Your task to perform on an android device: change keyboard looks Image 0: 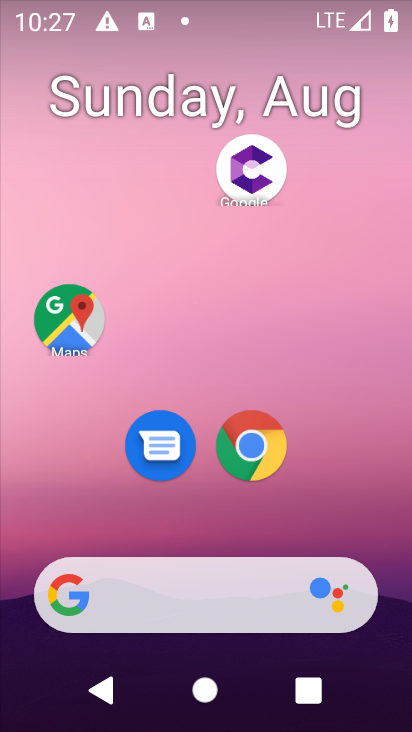
Step 0: press home button
Your task to perform on an android device: change keyboard looks Image 1: 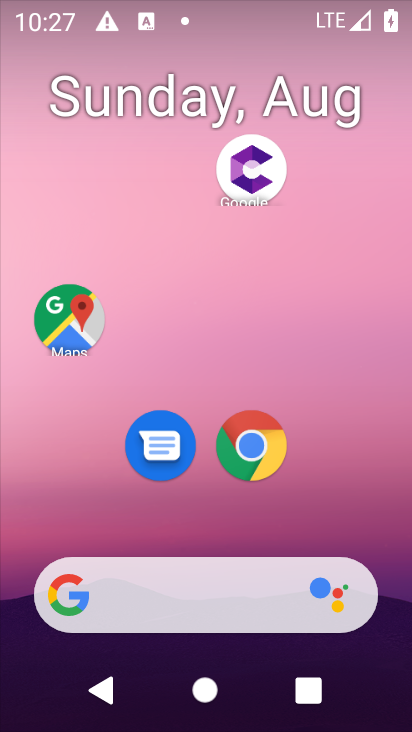
Step 1: drag from (207, 527) to (195, 120)
Your task to perform on an android device: change keyboard looks Image 2: 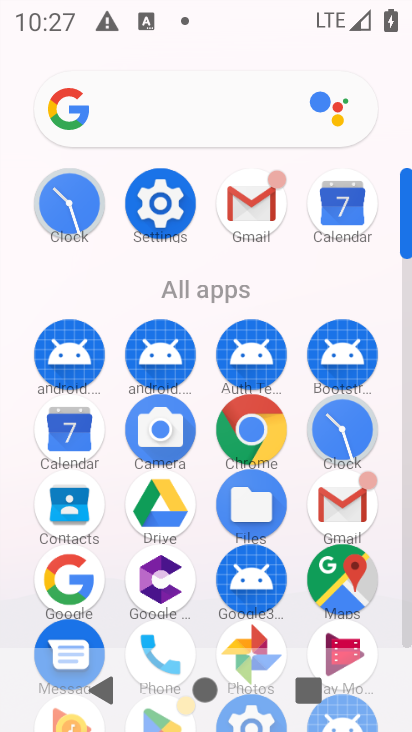
Step 2: click (154, 199)
Your task to perform on an android device: change keyboard looks Image 3: 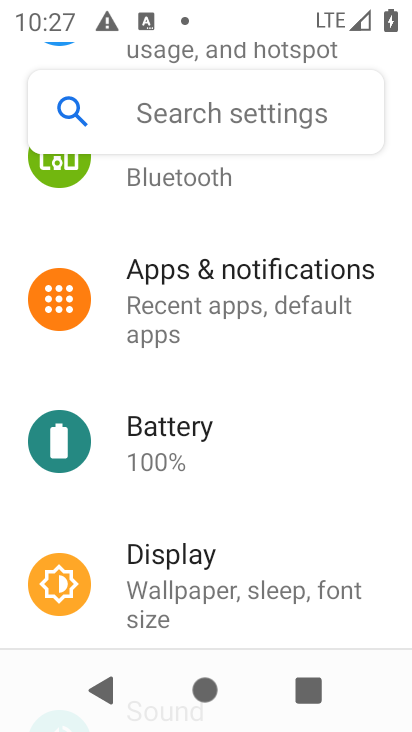
Step 3: drag from (252, 619) to (262, 119)
Your task to perform on an android device: change keyboard looks Image 4: 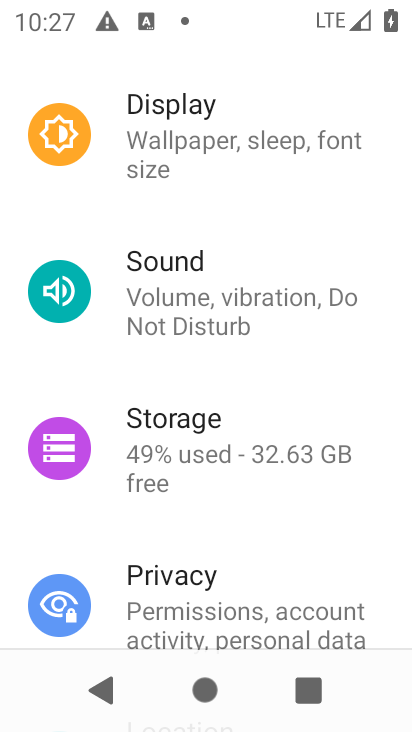
Step 4: drag from (243, 564) to (267, 107)
Your task to perform on an android device: change keyboard looks Image 5: 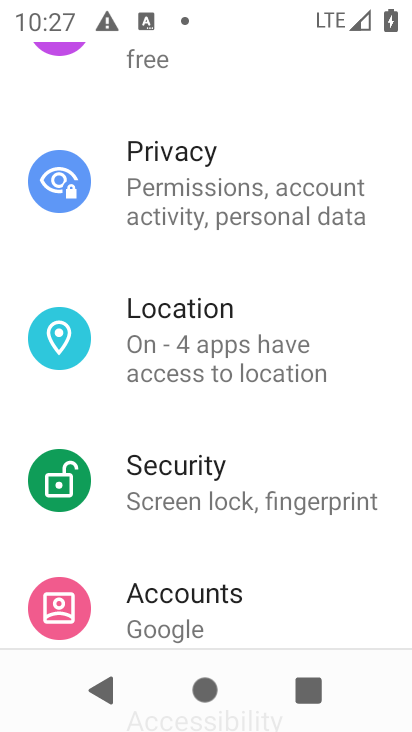
Step 5: drag from (260, 615) to (257, 67)
Your task to perform on an android device: change keyboard looks Image 6: 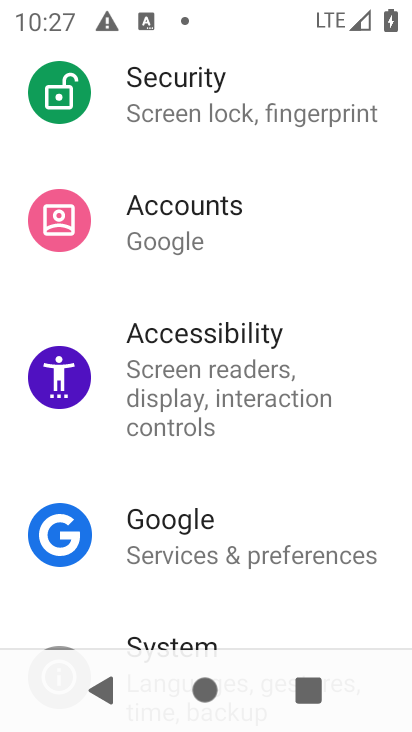
Step 6: drag from (243, 607) to (259, 104)
Your task to perform on an android device: change keyboard looks Image 7: 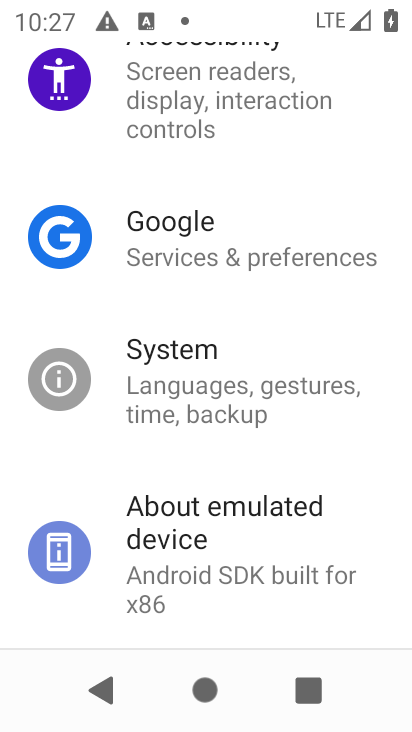
Step 7: click (112, 363)
Your task to perform on an android device: change keyboard looks Image 8: 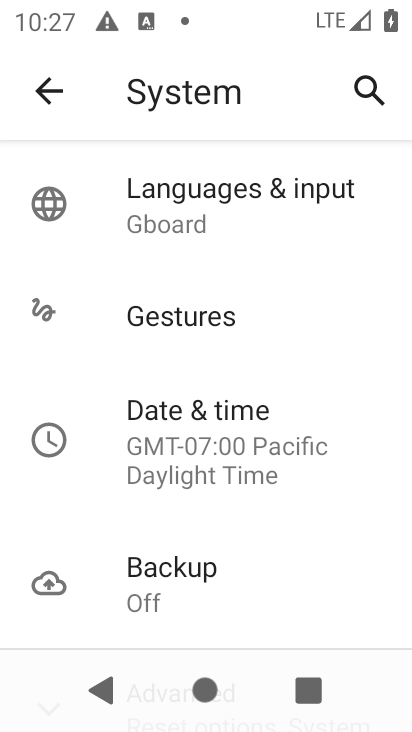
Step 8: drag from (225, 594) to (261, 84)
Your task to perform on an android device: change keyboard looks Image 9: 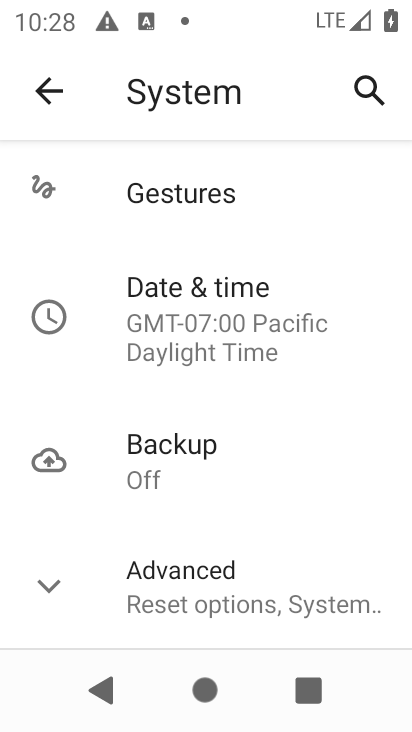
Step 9: click (50, 591)
Your task to perform on an android device: change keyboard looks Image 10: 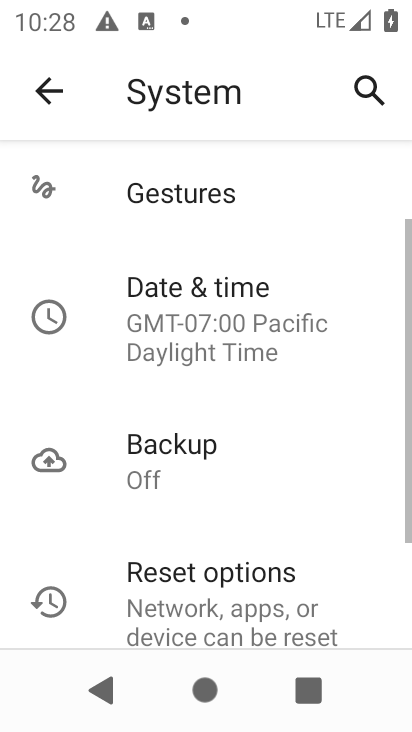
Step 10: drag from (250, 567) to (246, 146)
Your task to perform on an android device: change keyboard looks Image 11: 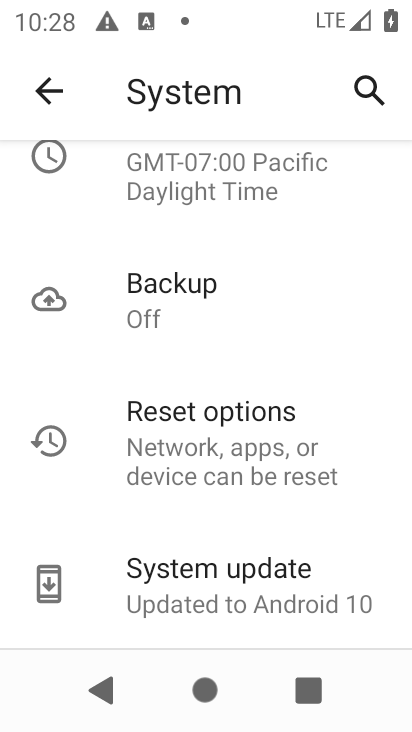
Step 11: drag from (106, 217) to (145, 608)
Your task to perform on an android device: change keyboard looks Image 12: 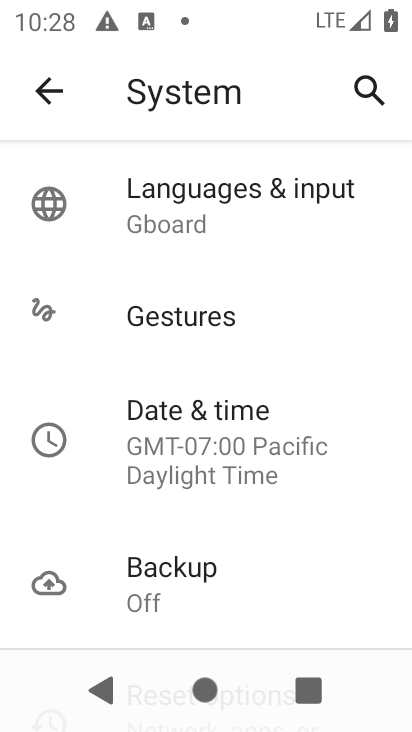
Step 12: click (118, 191)
Your task to perform on an android device: change keyboard looks Image 13: 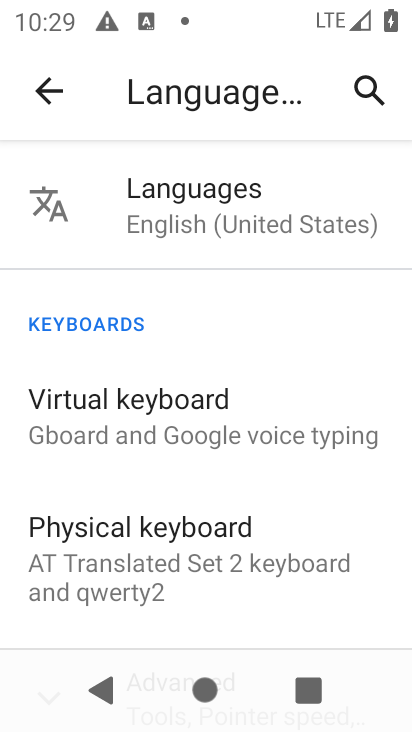
Step 13: click (161, 418)
Your task to perform on an android device: change keyboard looks Image 14: 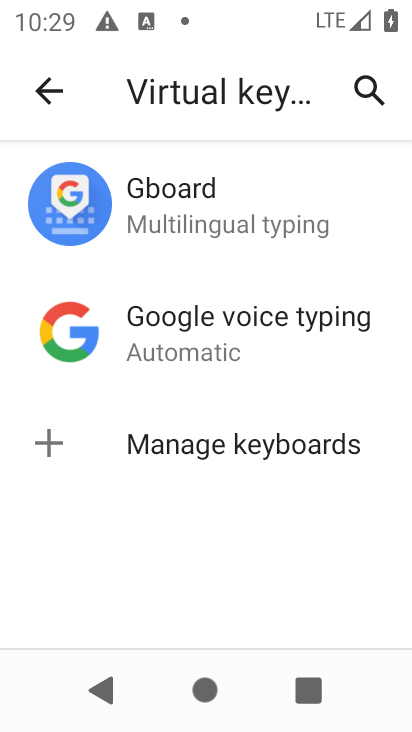
Step 14: click (168, 211)
Your task to perform on an android device: change keyboard looks Image 15: 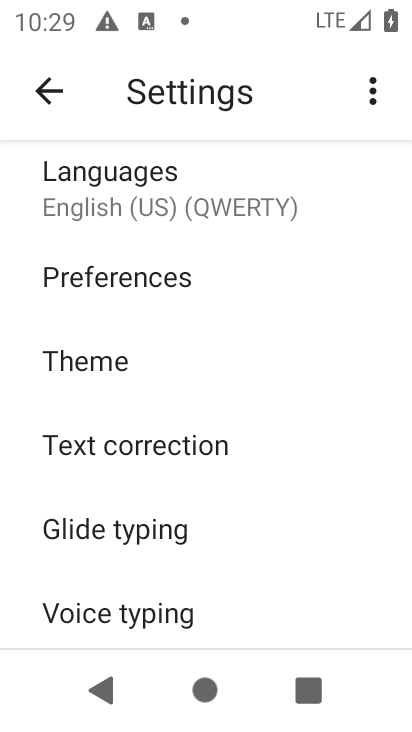
Step 15: click (125, 366)
Your task to perform on an android device: change keyboard looks Image 16: 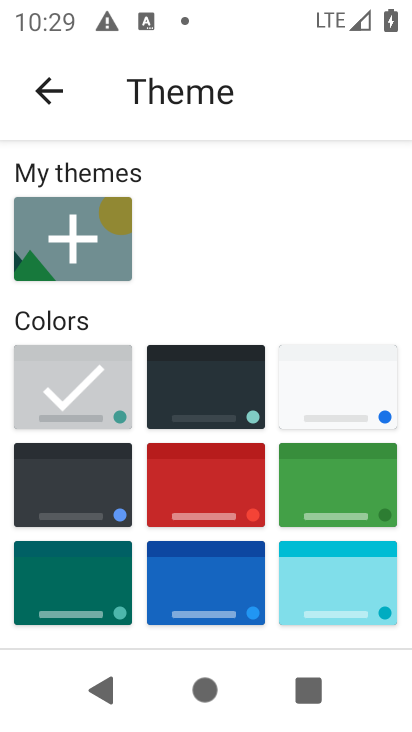
Step 16: click (213, 493)
Your task to perform on an android device: change keyboard looks Image 17: 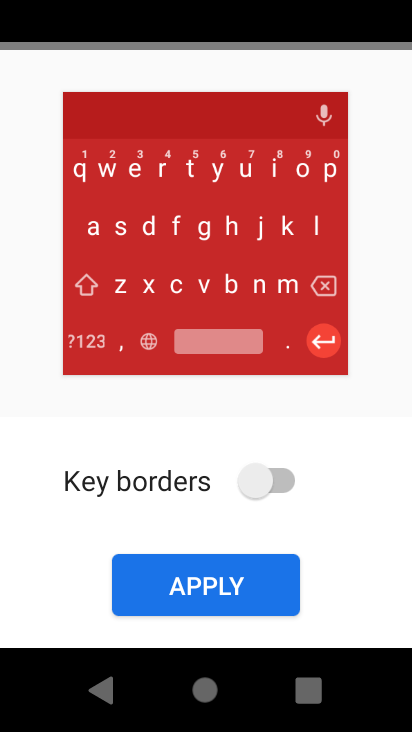
Step 17: click (218, 575)
Your task to perform on an android device: change keyboard looks Image 18: 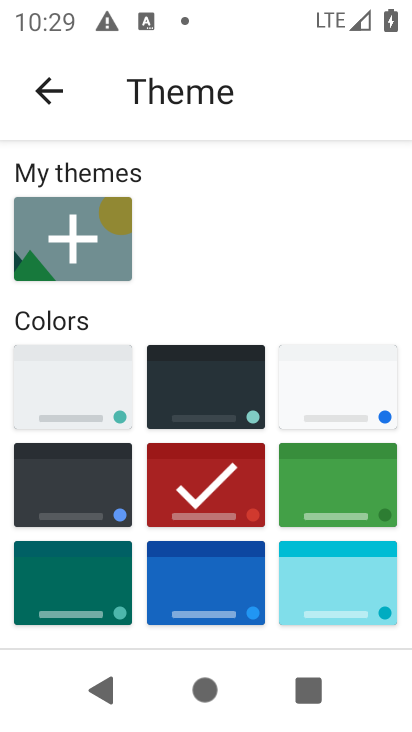
Step 18: task complete